Your task to perform on an android device: Is it going to rain tomorrow? Image 0: 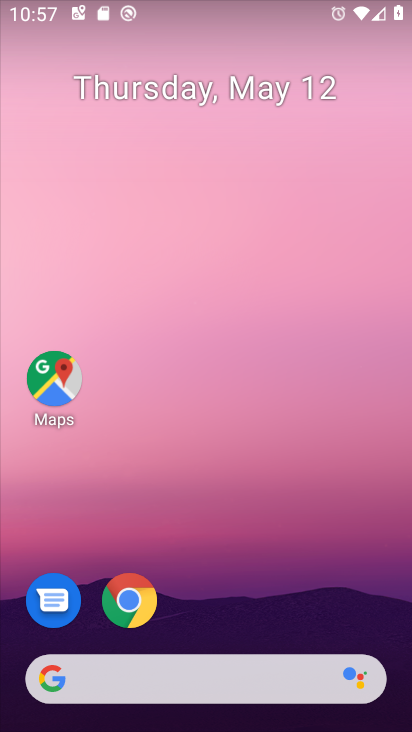
Step 0: click (134, 594)
Your task to perform on an android device: Is it going to rain tomorrow? Image 1: 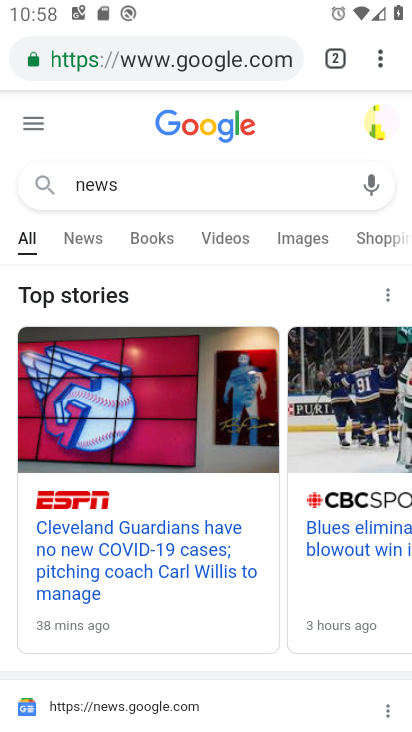
Step 1: click (330, 60)
Your task to perform on an android device: Is it going to rain tomorrow? Image 2: 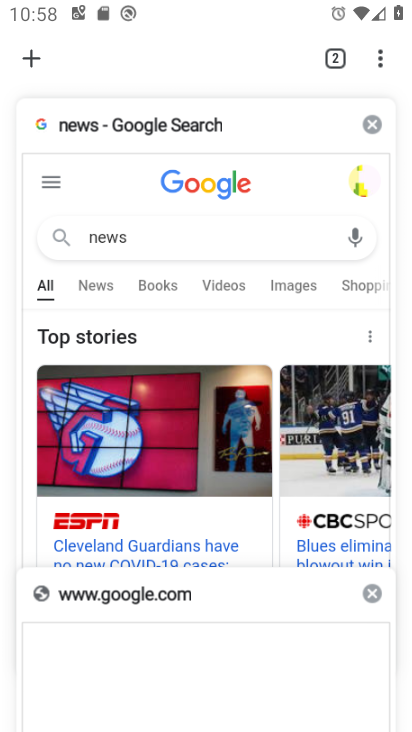
Step 2: click (32, 51)
Your task to perform on an android device: Is it going to rain tomorrow? Image 3: 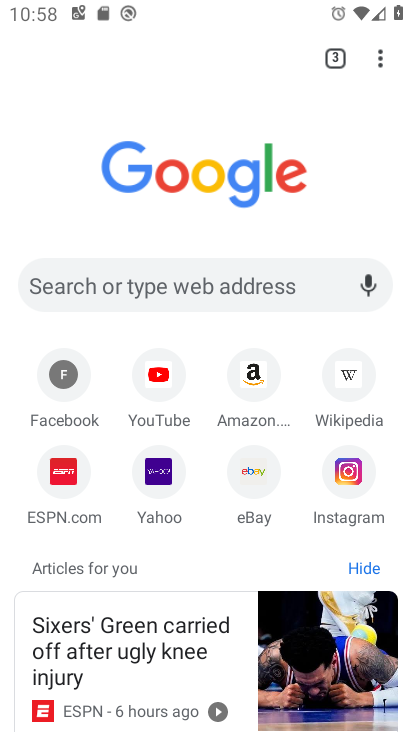
Step 3: click (141, 293)
Your task to perform on an android device: Is it going to rain tomorrow? Image 4: 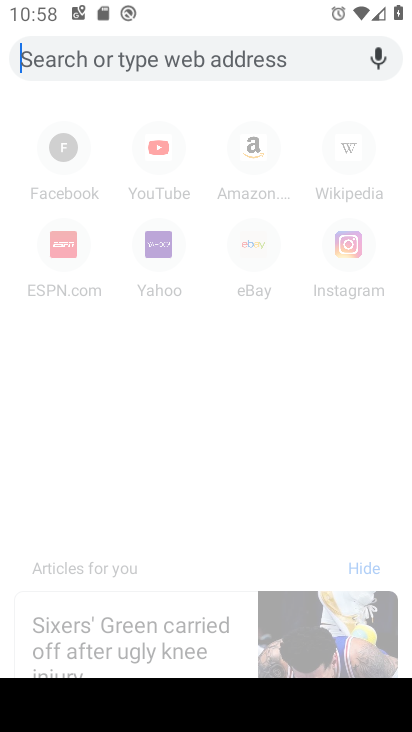
Step 4: type "is it going to rain tomorrow"
Your task to perform on an android device: Is it going to rain tomorrow? Image 5: 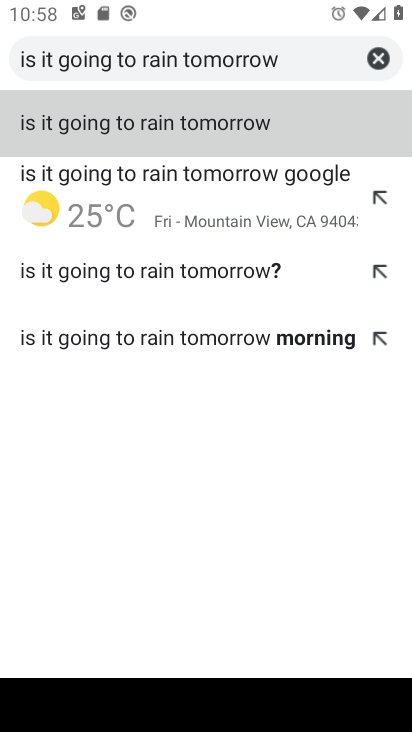
Step 5: click (140, 128)
Your task to perform on an android device: Is it going to rain tomorrow? Image 6: 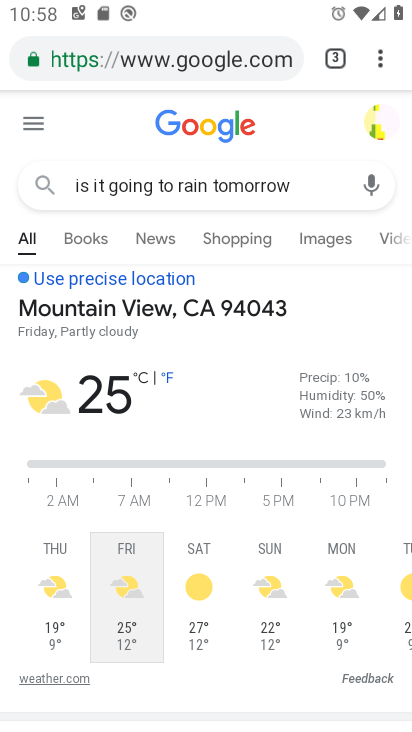
Step 6: task complete